Your task to perform on an android device: Open eBay Image 0: 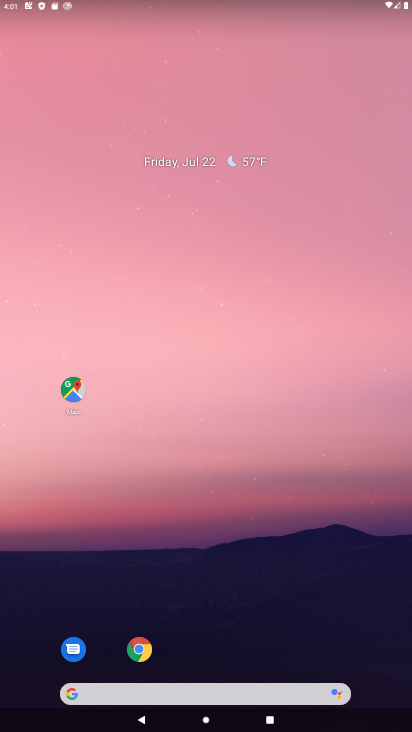
Step 0: click (92, 694)
Your task to perform on an android device: Open eBay Image 1: 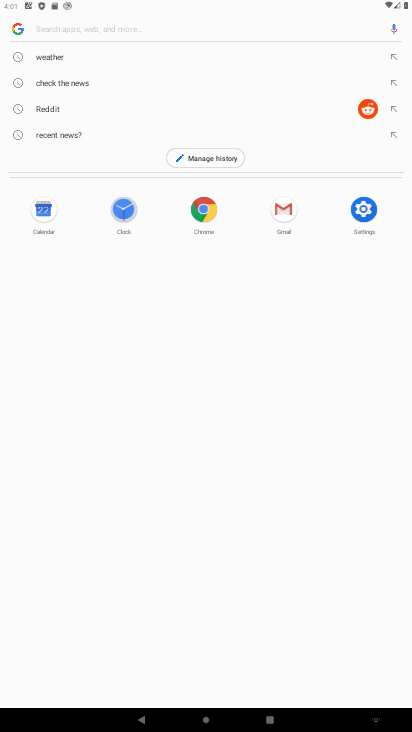
Step 1: type "eBay"
Your task to perform on an android device: Open eBay Image 2: 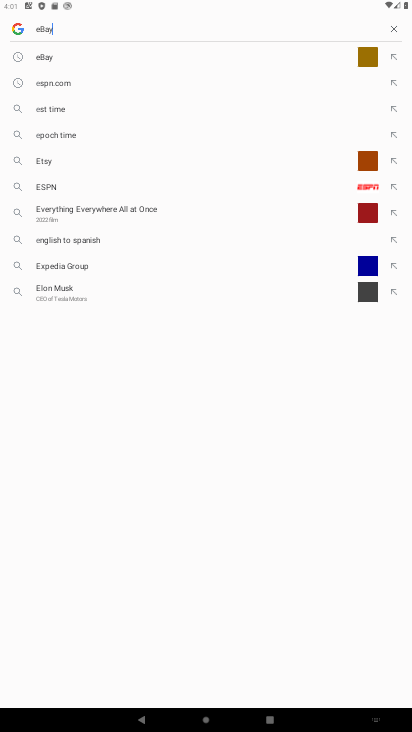
Step 2: type ""
Your task to perform on an android device: Open eBay Image 3: 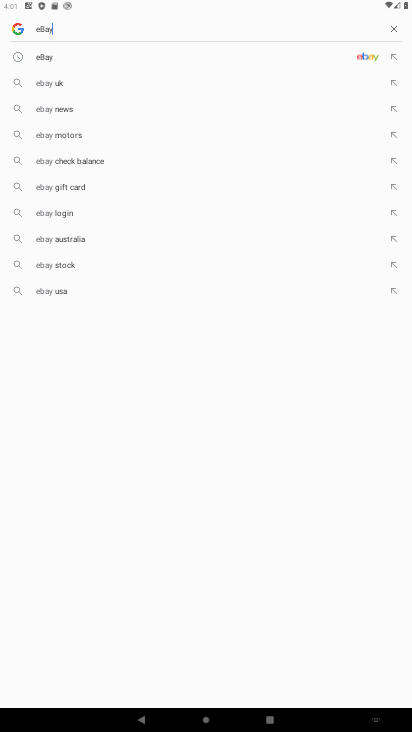
Step 3: click (47, 58)
Your task to perform on an android device: Open eBay Image 4: 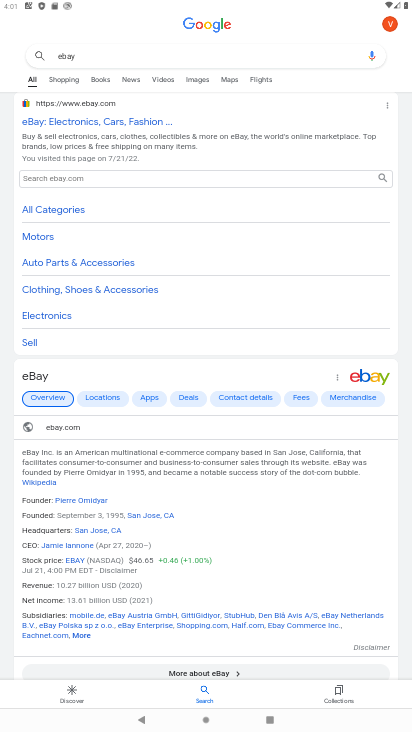
Step 4: task complete